Your task to perform on an android device: Check the weather Image 0: 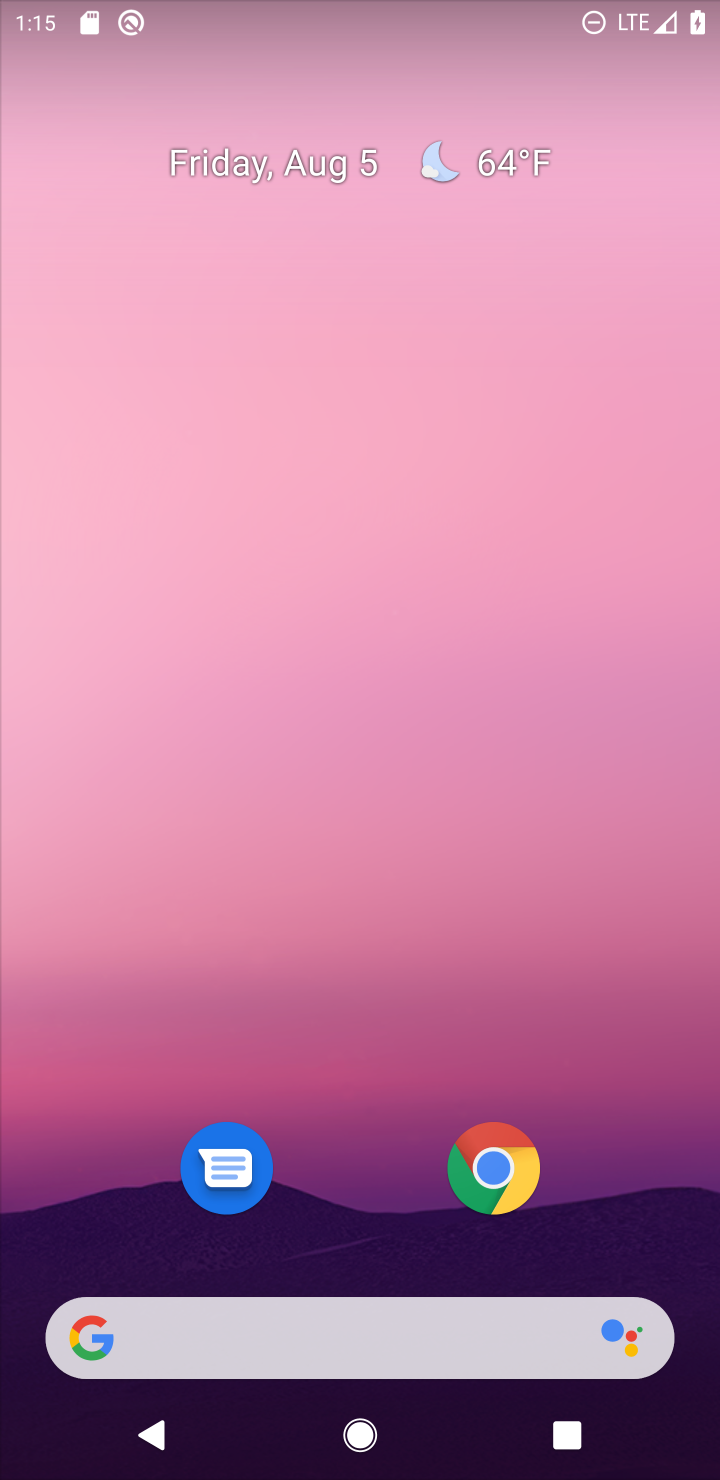
Step 0: drag from (577, 1221) to (210, 11)
Your task to perform on an android device: Check the weather Image 1: 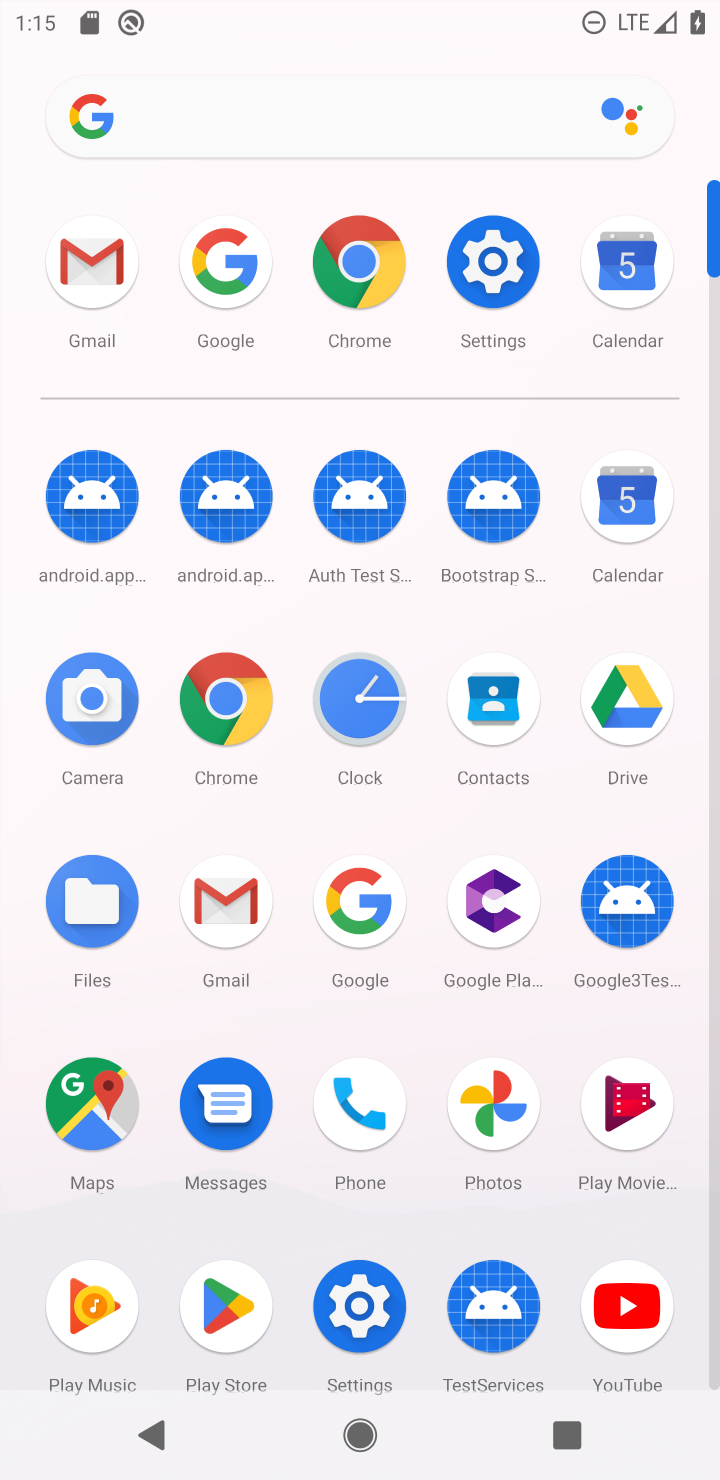
Step 1: click (348, 935)
Your task to perform on an android device: Check the weather Image 2: 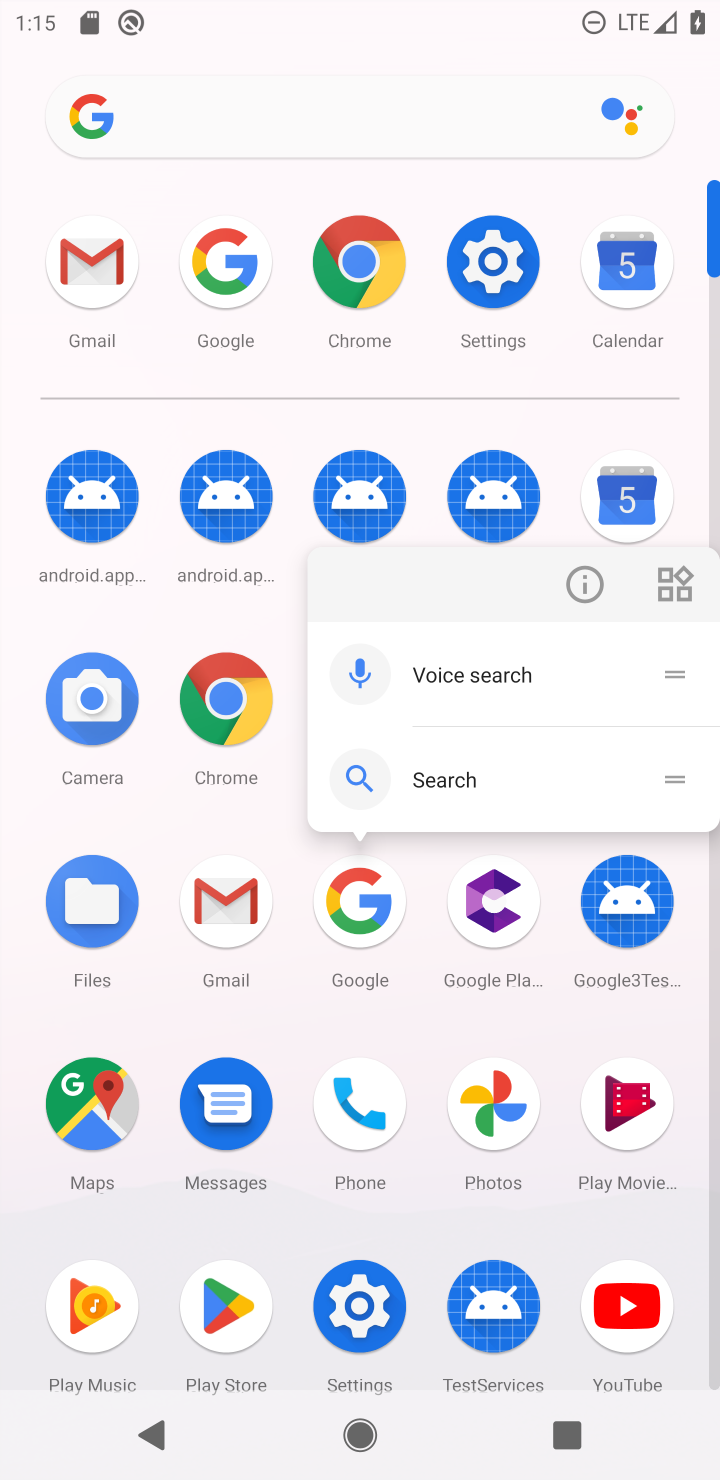
Step 2: click (348, 935)
Your task to perform on an android device: Check the weather Image 3: 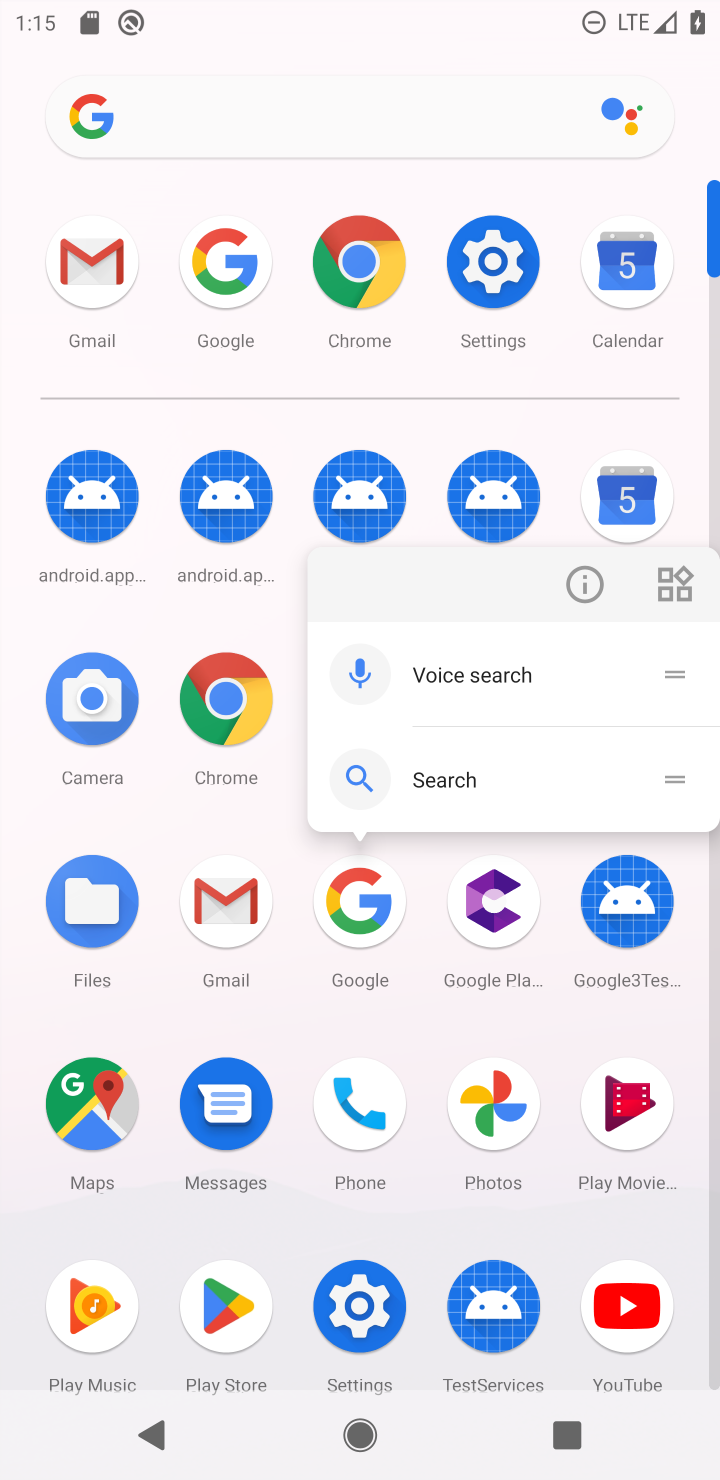
Step 3: click (348, 935)
Your task to perform on an android device: Check the weather Image 4: 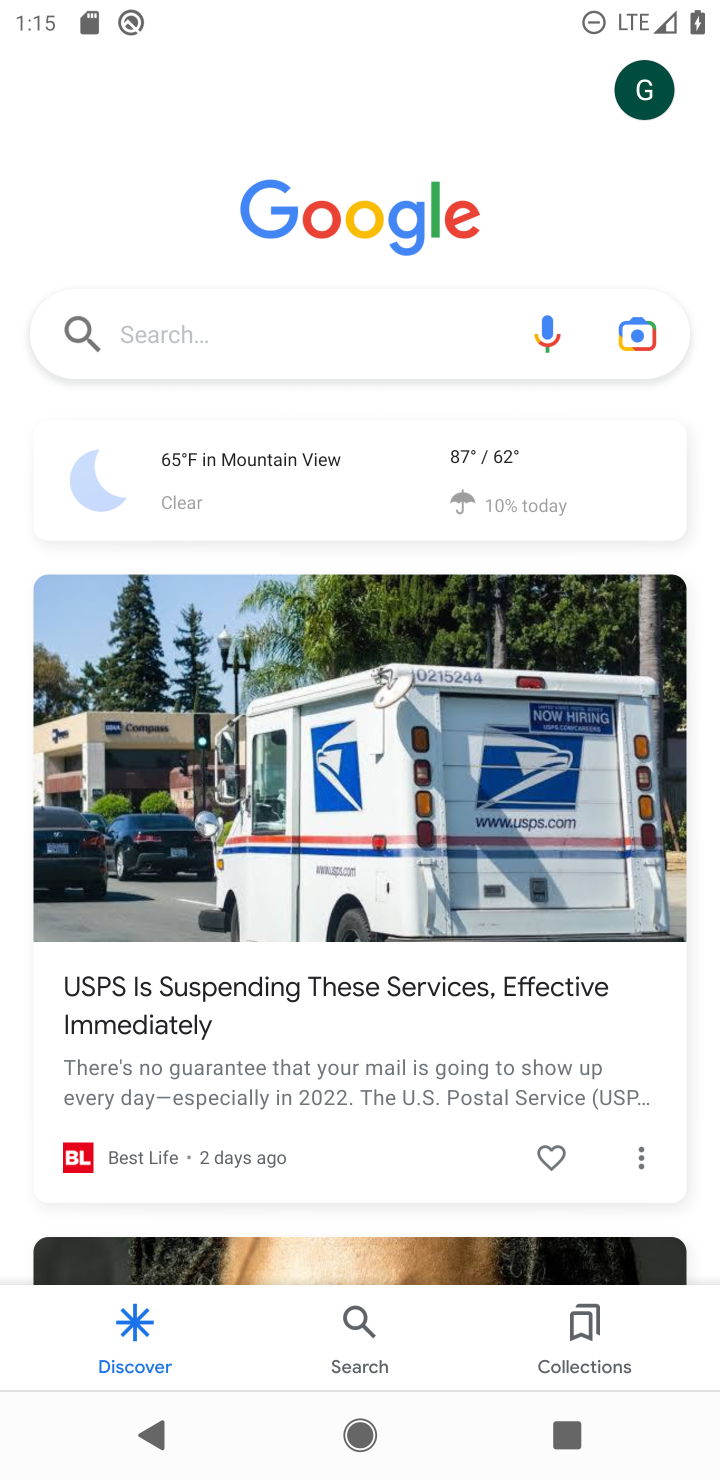
Step 4: click (299, 331)
Your task to perform on an android device: Check the weather Image 5: 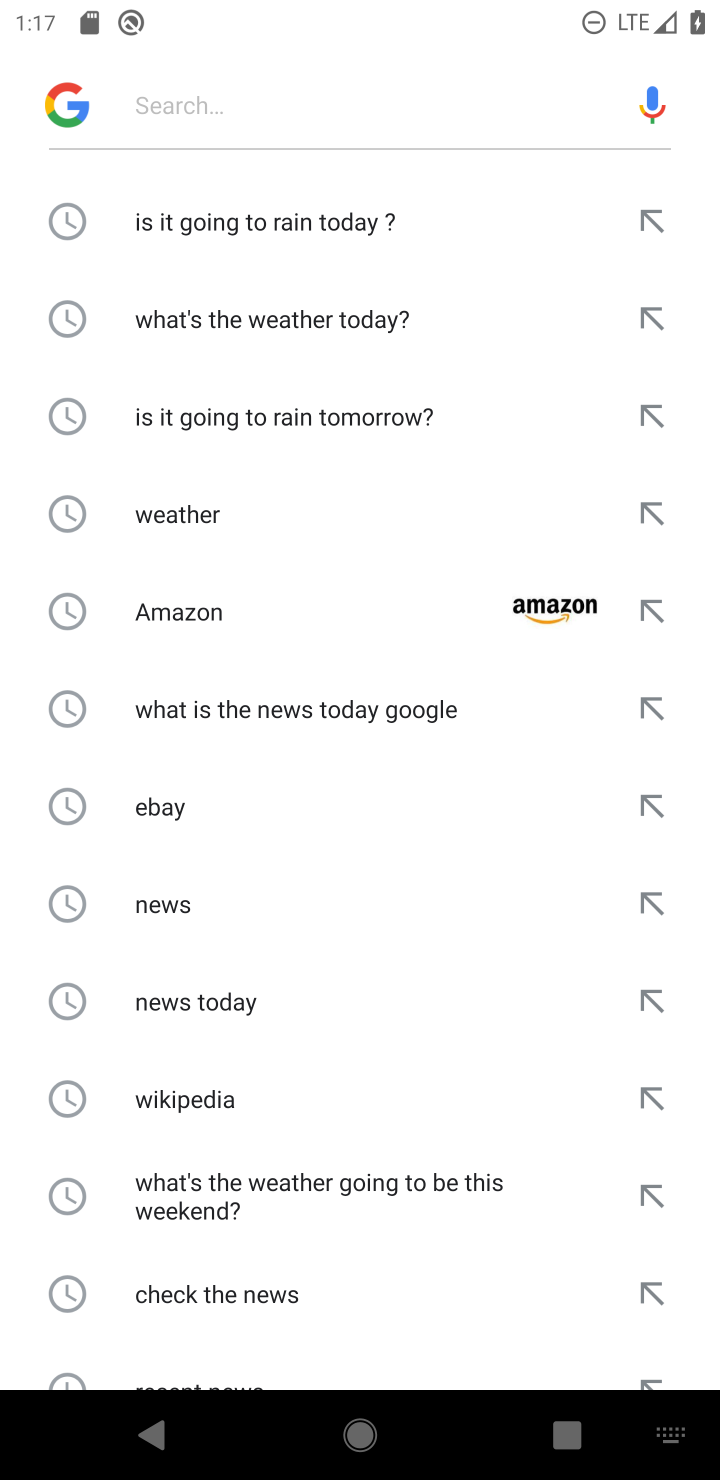
Step 5: click (210, 498)
Your task to perform on an android device: Check the weather Image 6: 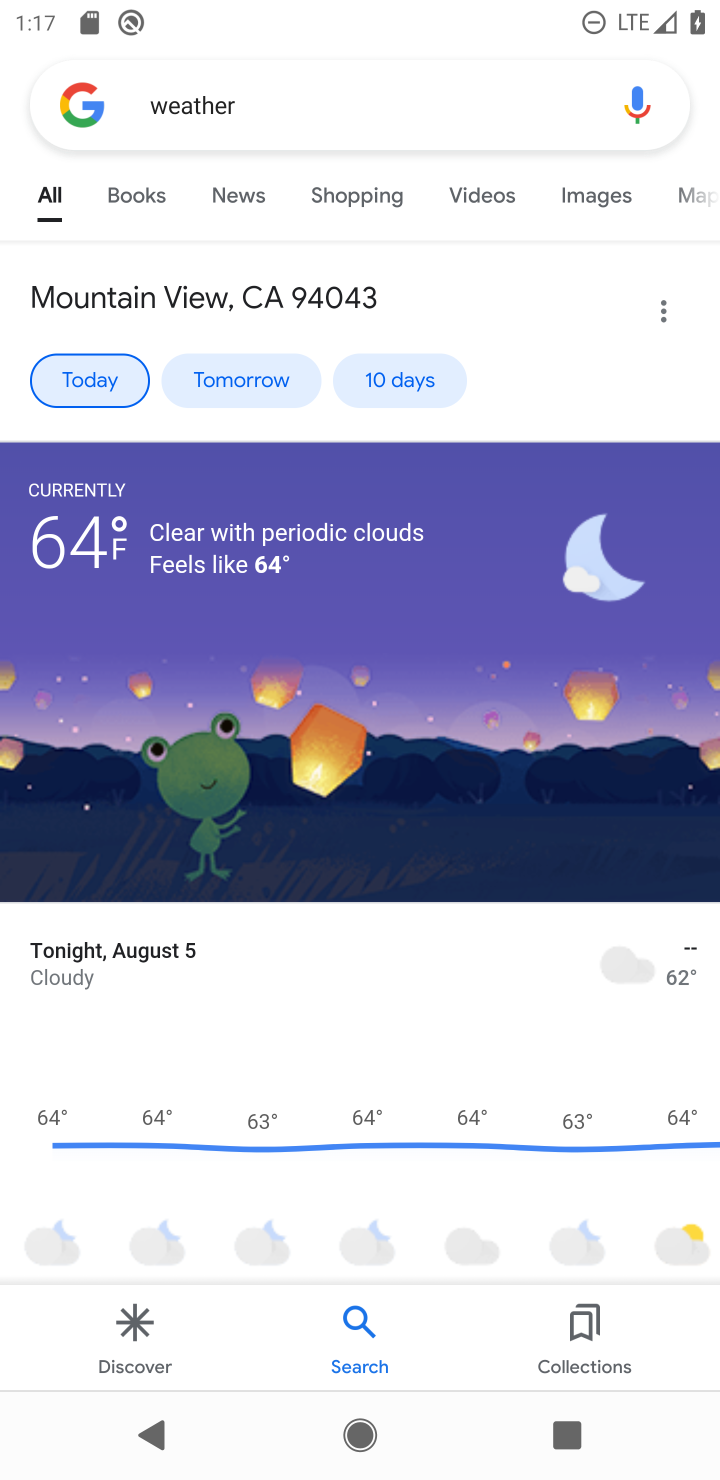
Step 6: press back button
Your task to perform on an android device: Check the weather Image 7: 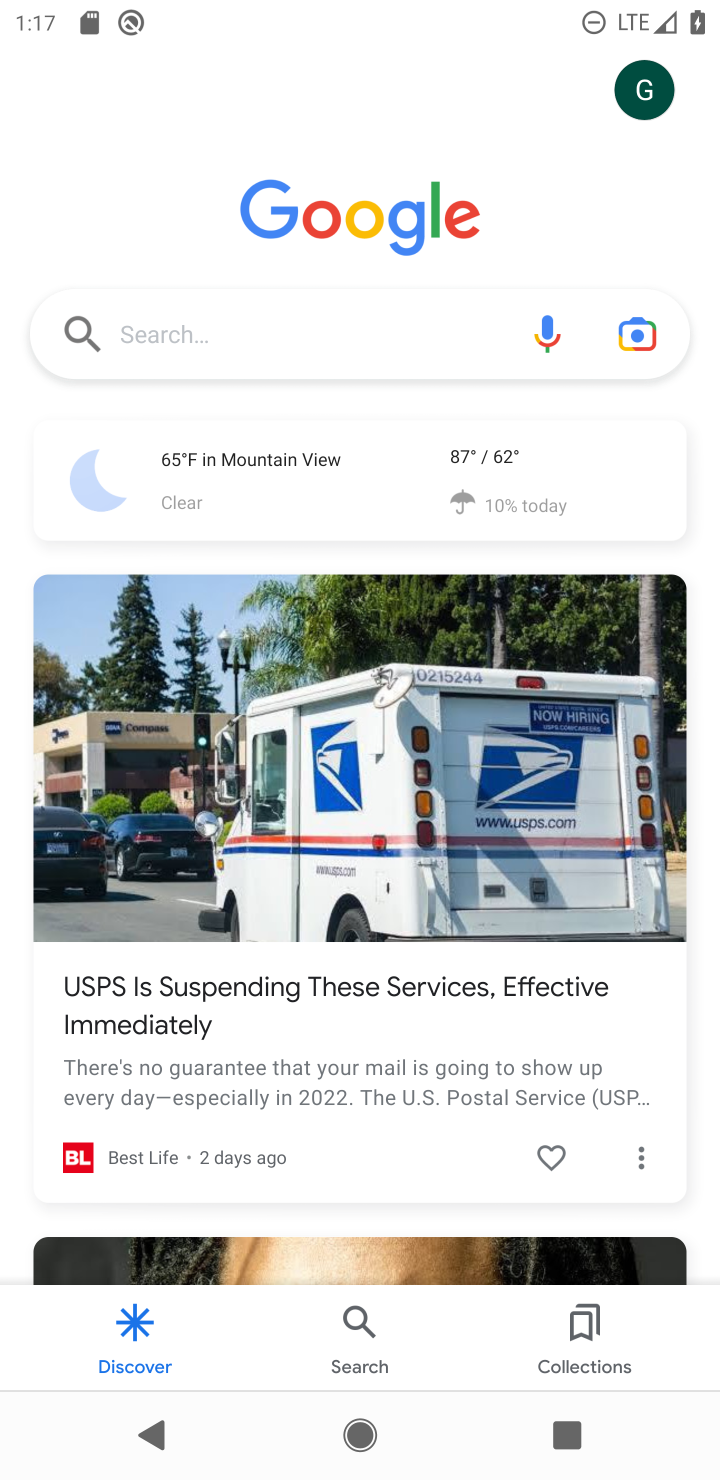
Step 7: click (235, 368)
Your task to perform on an android device: Check the weather Image 8: 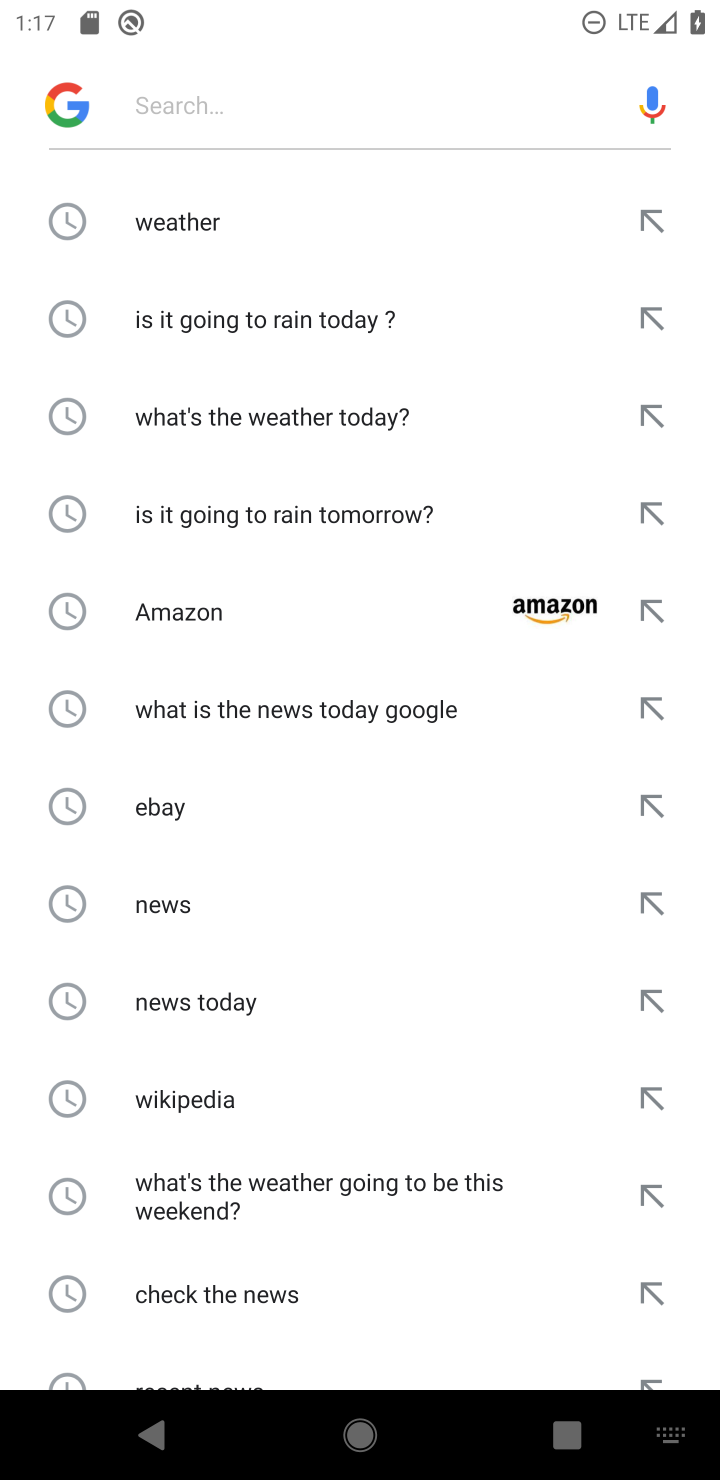
Step 8: click (199, 260)
Your task to perform on an android device: Check the weather Image 9: 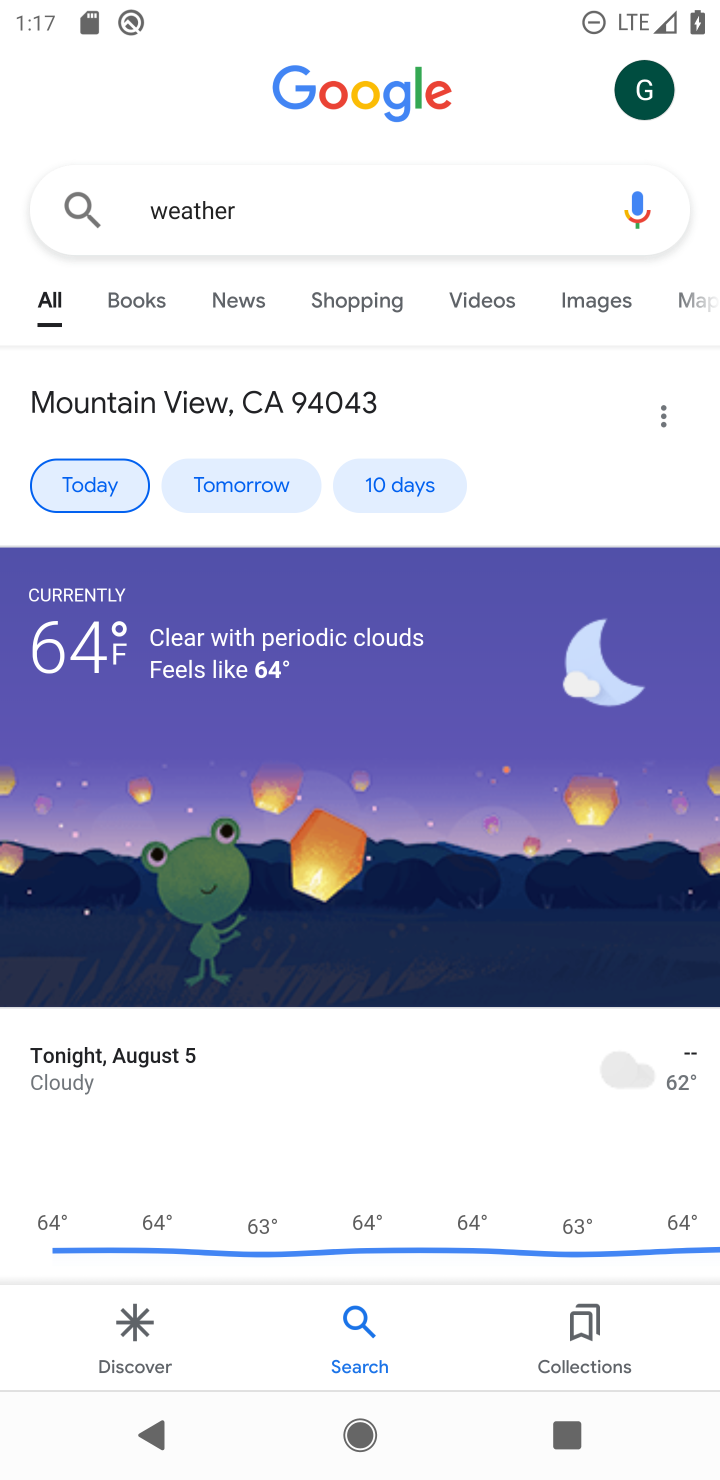
Step 9: task complete